Your task to perform on an android device: open app "DuckDuckGo Privacy Browser" (install if not already installed) Image 0: 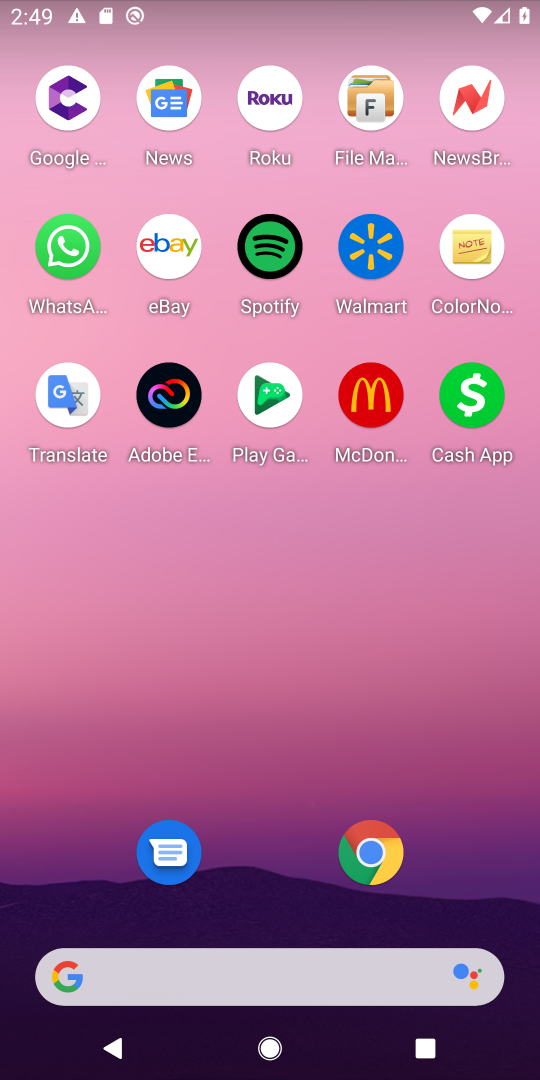
Step 0: drag from (290, 914) to (263, 3)
Your task to perform on an android device: open app "DuckDuckGo Privacy Browser" (install if not already installed) Image 1: 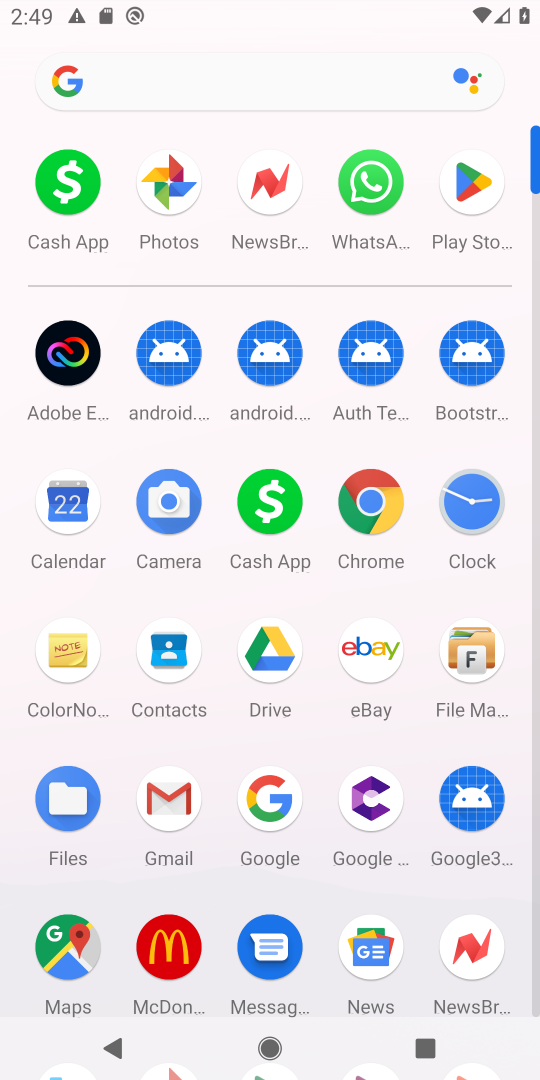
Step 1: click (462, 179)
Your task to perform on an android device: open app "DuckDuckGo Privacy Browser" (install if not already installed) Image 2: 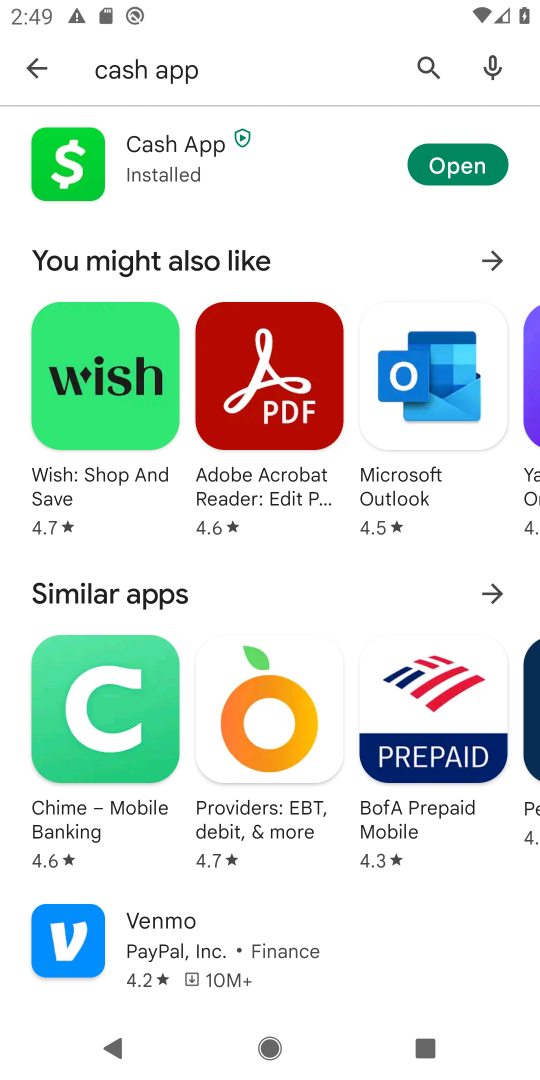
Step 2: click (428, 68)
Your task to perform on an android device: open app "DuckDuckGo Privacy Browser" (install if not already installed) Image 3: 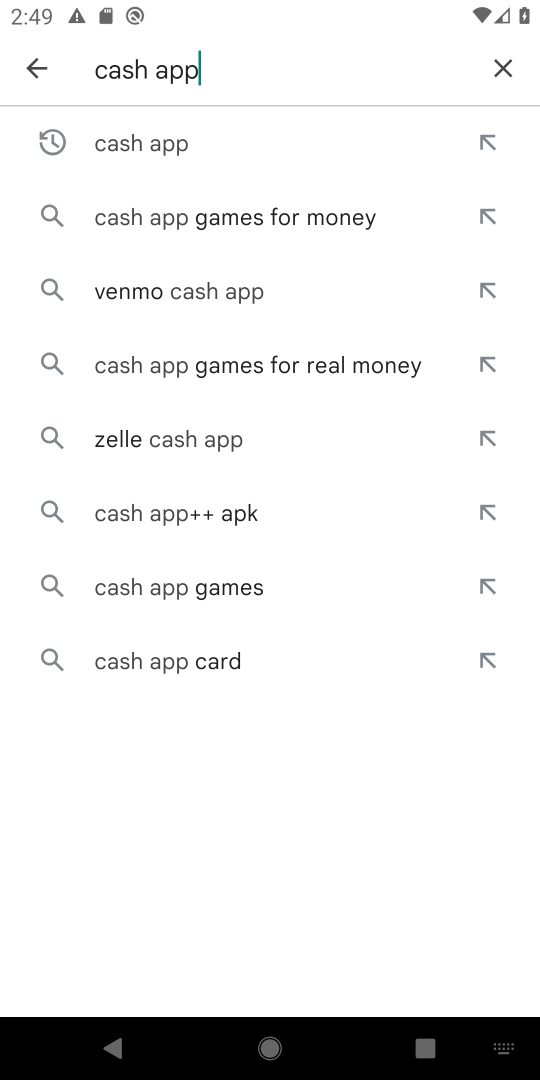
Step 3: click (500, 66)
Your task to perform on an android device: open app "DuckDuckGo Privacy Browser" (install if not already installed) Image 4: 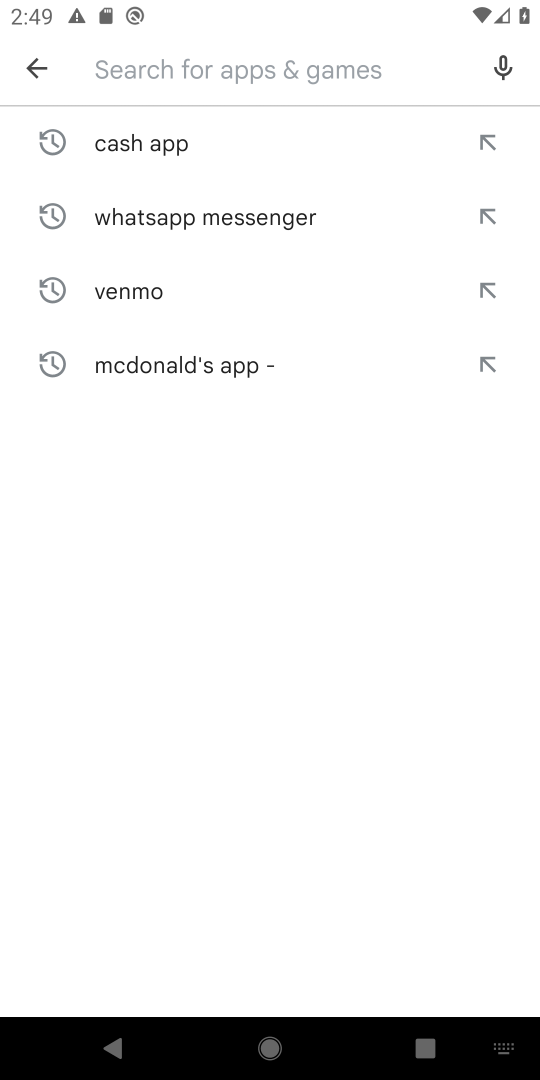
Step 4: type "DuckDuckGo Privacy Browser"
Your task to perform on an android device: open app "DuckDuckGo Privacy Browser" (install if not already installed) Image 5: 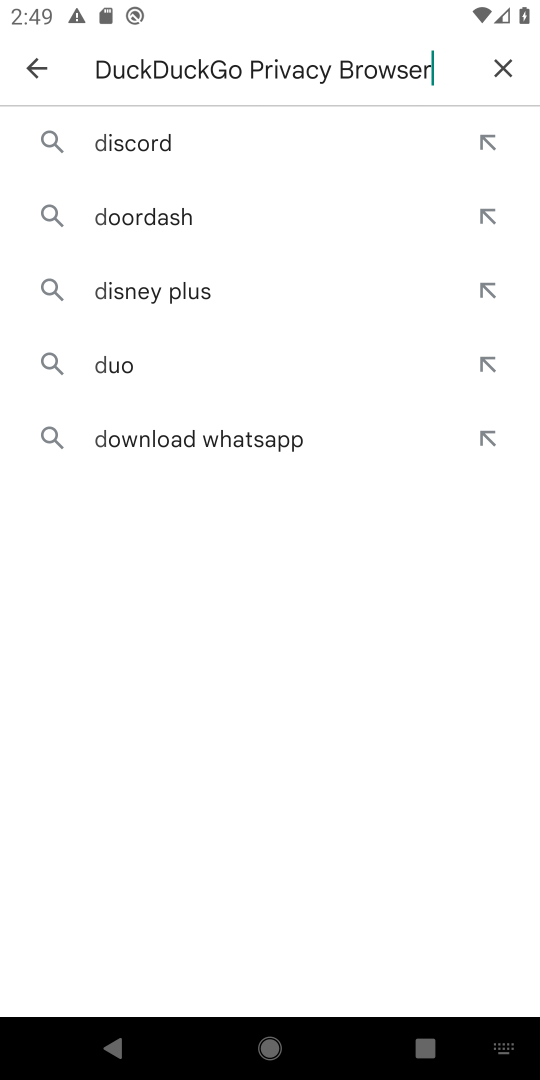
Step 5: type ""
Your task to perform on an android device: open app "DuckDuckGo Privacy Browser" (install if not already installed) Image 6: 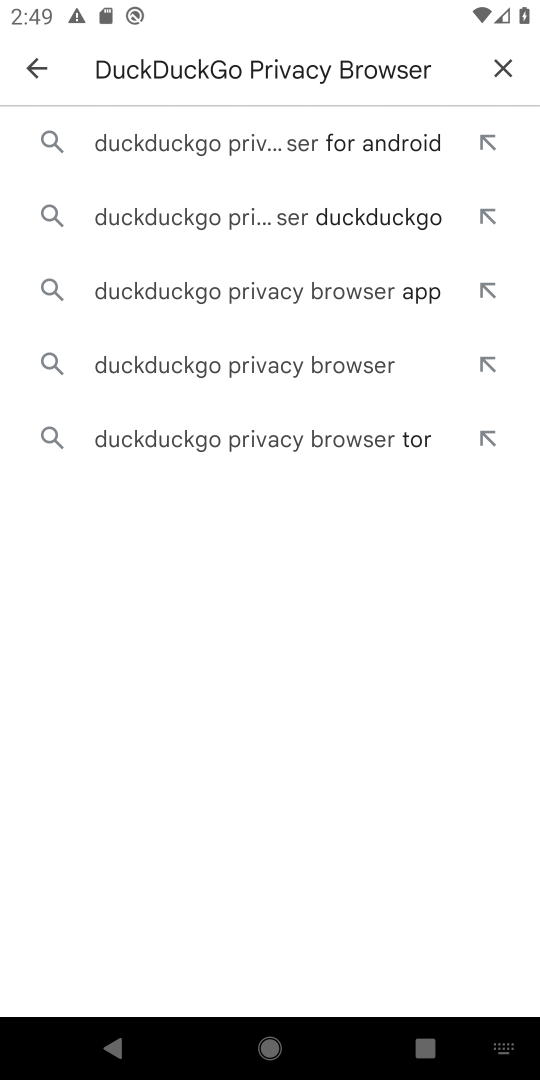
Step 6: click (302, 361)
Your task to perform on an android device: open app "DuckDuckGo Privacy Browser" (install if not already installed) Image 7: 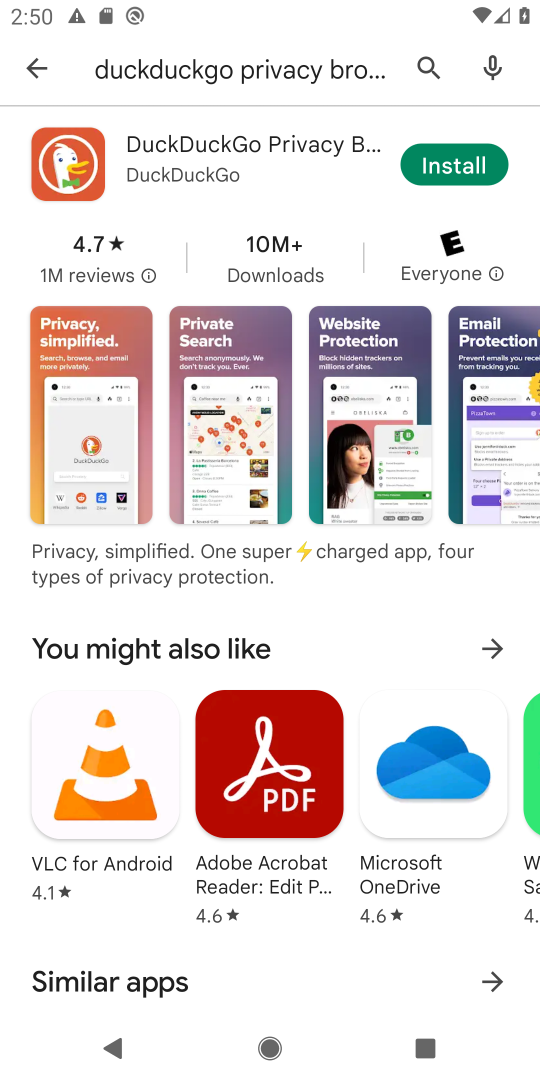
Step 7: click (468, 170)
Your task to perform on an android device: open app "DuckDuckGo Privacy Browser" (install if not already installed) Image 8: 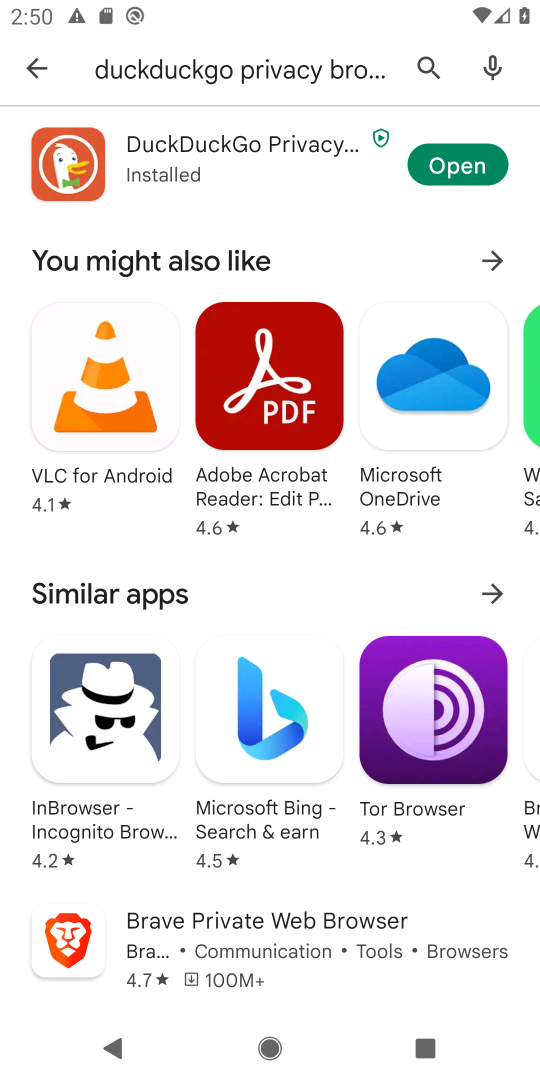
Step 8: click (479, 159)
Your task to perform on an android device: open app "DuckDuckGo Privacy Browser" (install if not already installed) Image 9: 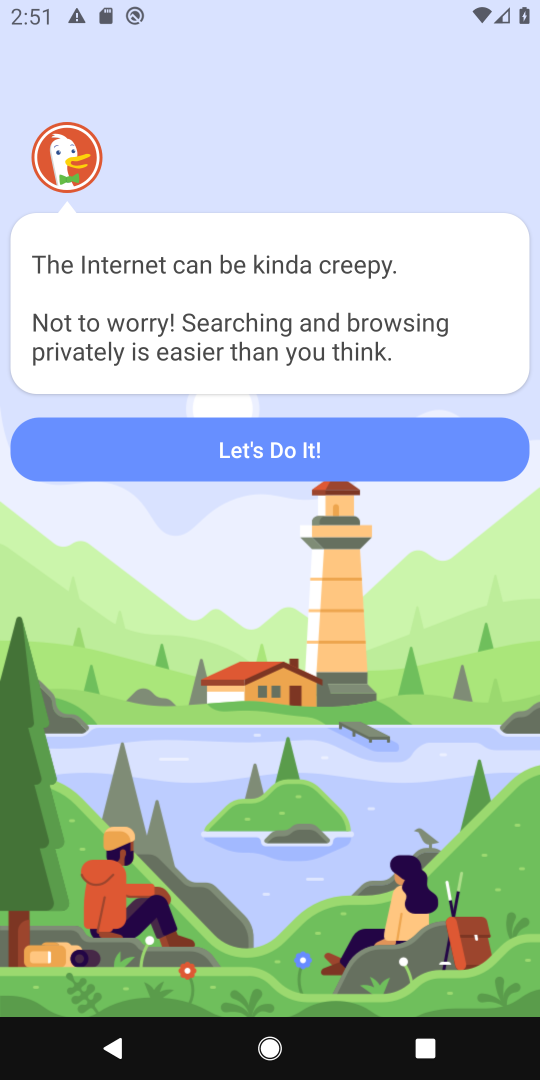
Step 9: task complete